Your task to perform on an android device: check battery use Image 0: 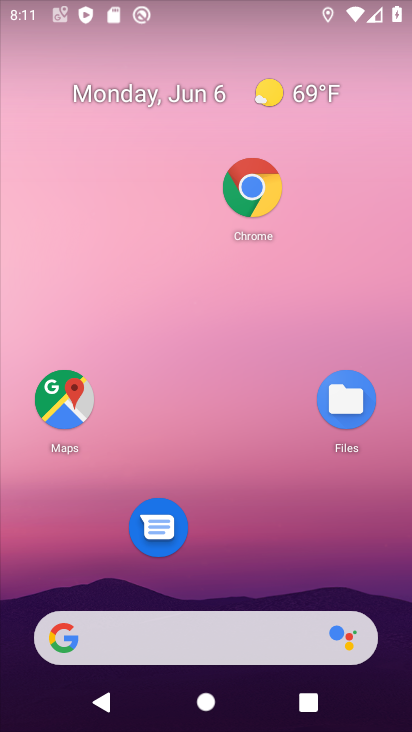
Step 0: drag from (255, 514) to (227, 61)
Your task to perform on an android device: check battery use Image 1: 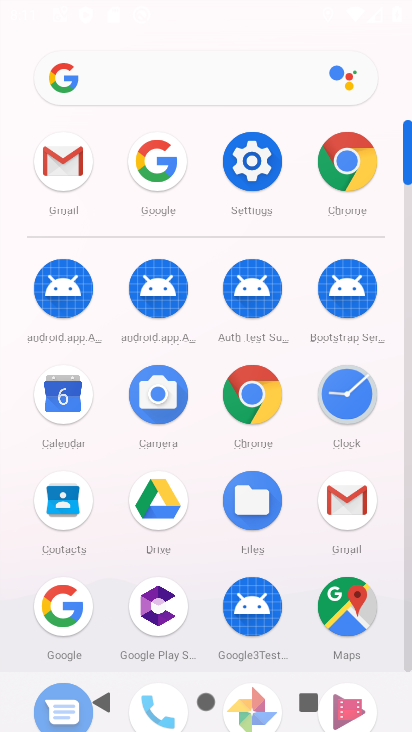
Step 1: click (248, 162)
Your task to perform on an android device: check battery use Image 2: 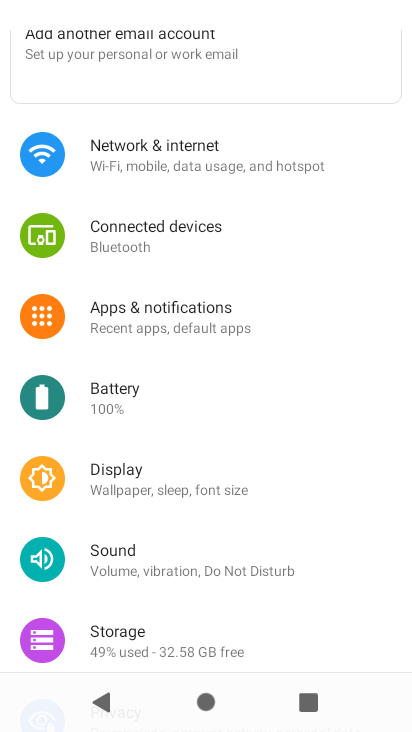
Step 2: click (151, 423)
Your task to perform on an android device: check battery use Image 3: 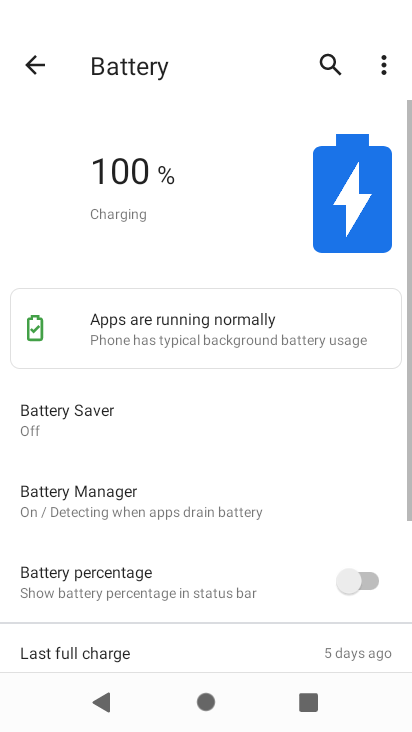
Step 3: click (379, 67)
Your task to perform on an android device: check battery use Image 4: 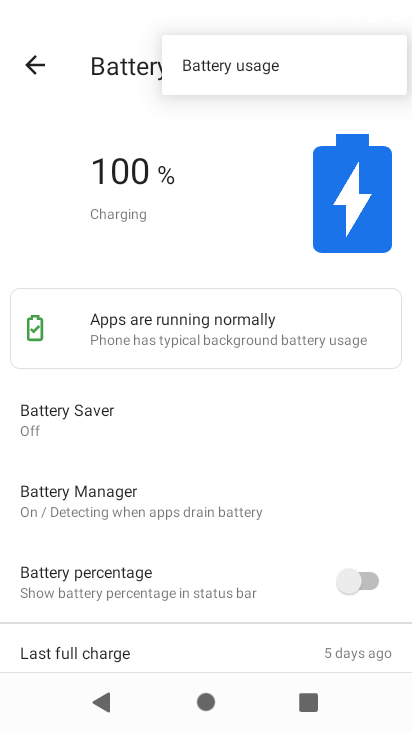
Step 4: click (255, 61)
Your task to perform on an android device: check battery use Image 5: 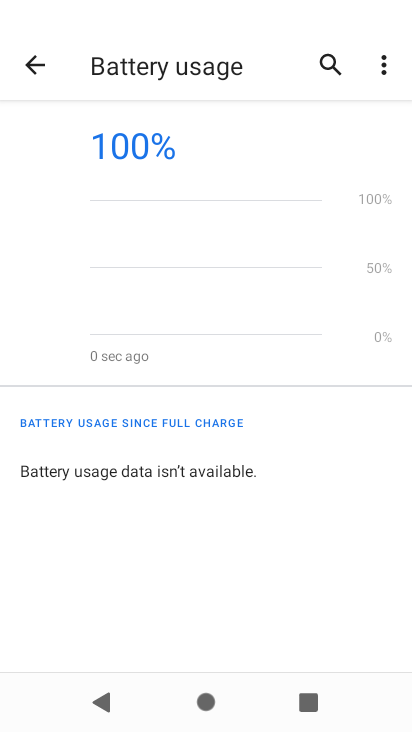
Step 5: task complete